Your task to perform on an android device: turn notification dots off Image 0: 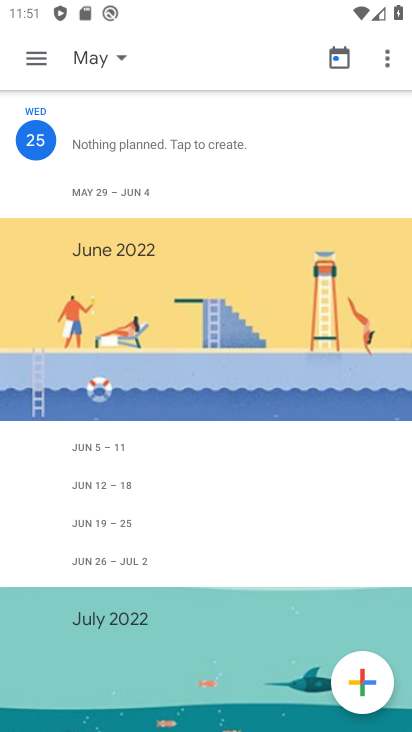
Step 0: press home button
Your task to perform on an android device: turn notification dots off Image 1: 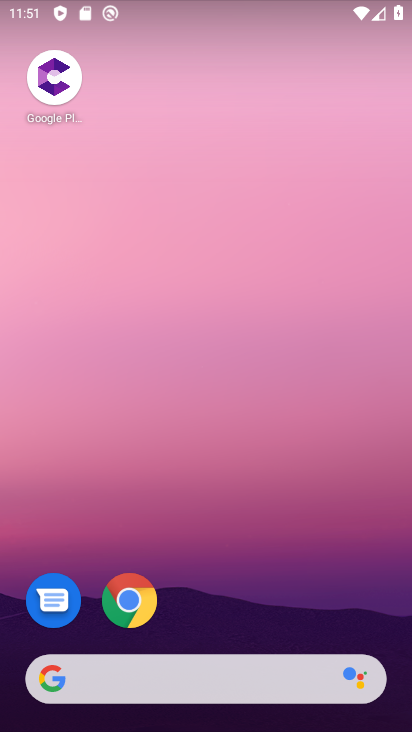
Step 1: drag from (258, 528) to (286, 13)
Your task to perform on an android device: turn notification dots off Image 2: 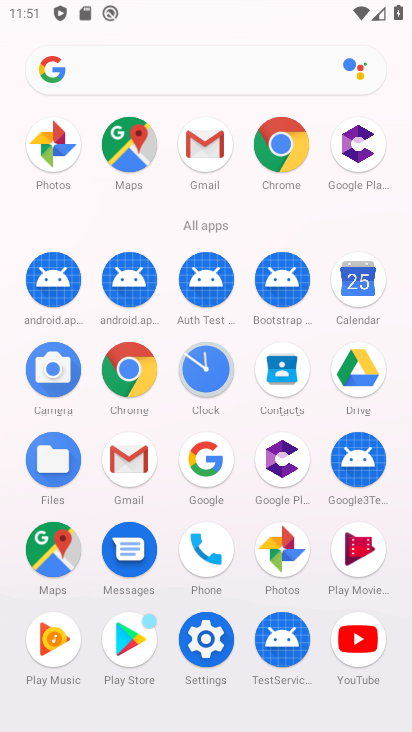
Step 2: click (221, 629)
Your task to perform on an android device: turn notification dots off Image 3: 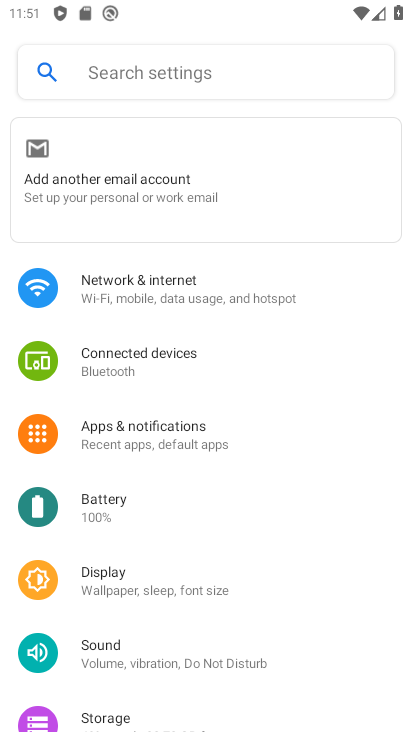
Step 3: click (157, 438)
Your task to perform on an android device: turn notification dots off Image 4: 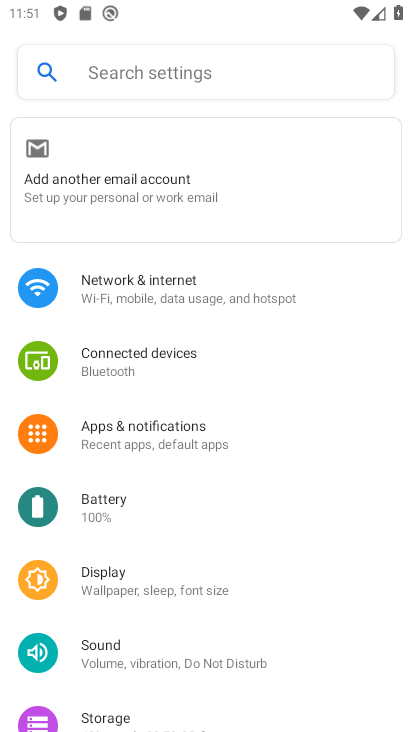
Step 4: click (182, 434)
Your task to perform on an android device: turn notification dots off Image 5: 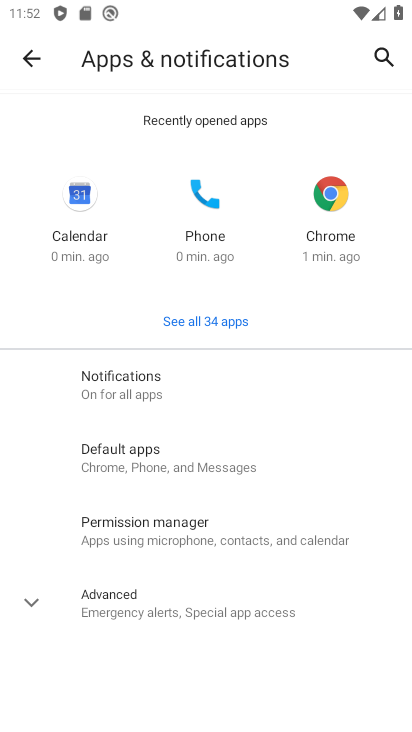
Step 5: click (166, 396)
Your task to perform on an android device: turn notification dots off Image 6: 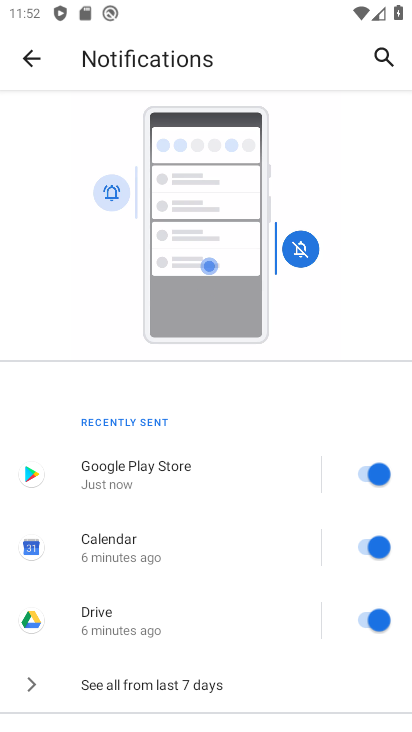
Step 6: drag from (271, 592) to (340, 128)
Your task to perform on an android device: turn notification dots off Image 7: 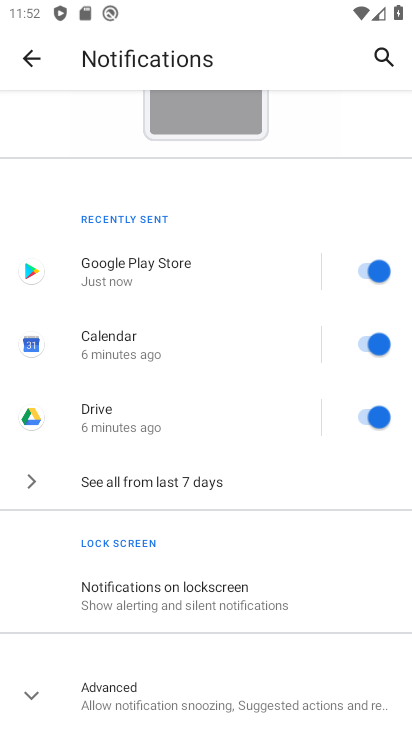
Step 7: click (188, 704)
Your task to perform on an android device: turn notification dots off Image 8: 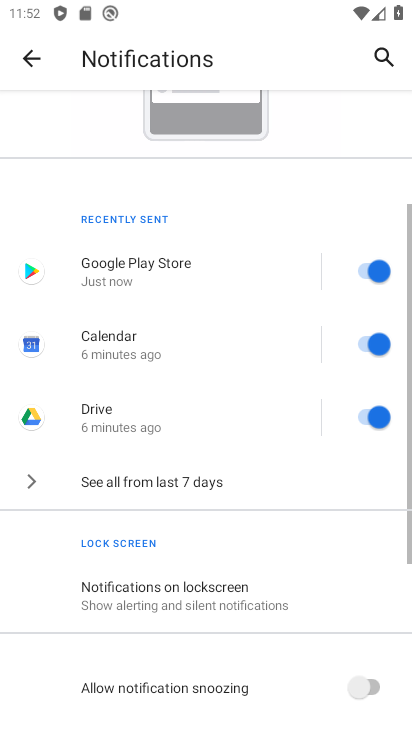
Step 8: drag from (209, 650) to (308, 207)
Your task to perform on an android device: turn notification dots off Image 9: 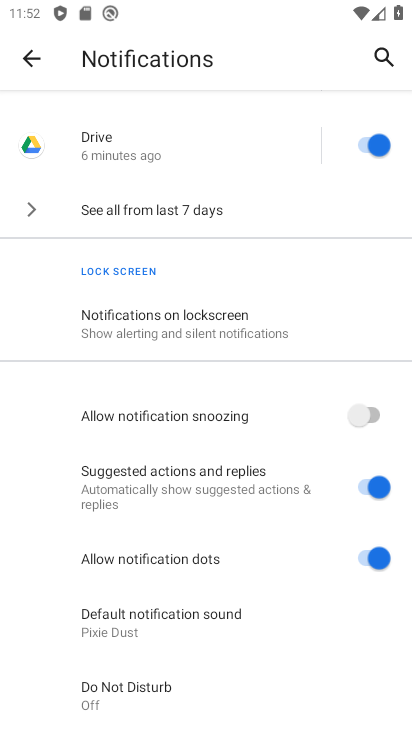
Step 9: click (374, 546)
Your task to perform on an android device: turn notification dots off Image 10: 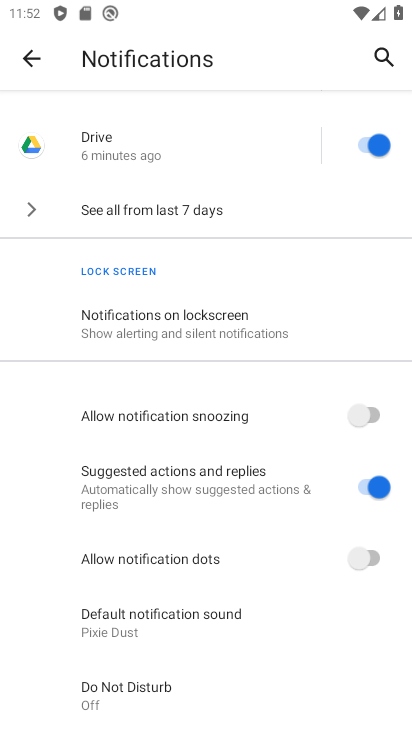
Step 10: task complete